Your task to perform on an android device: Open notification settings Image 0: 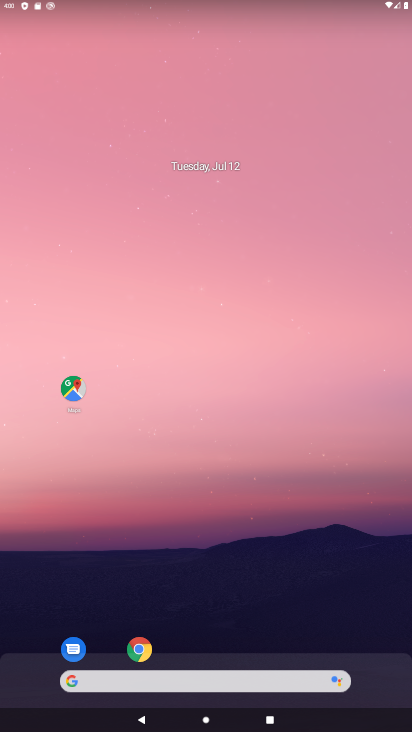
Step 0: drag from (186, 633) to (294, 125)
Your task to perform on an android device: Open notification settings Image 1: 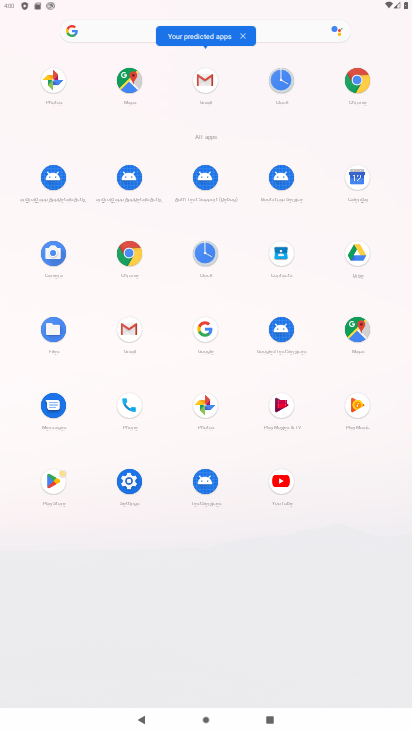
Step 1: click (126, 480)
Your task to perform on an android device: Open notification settings Image 2: 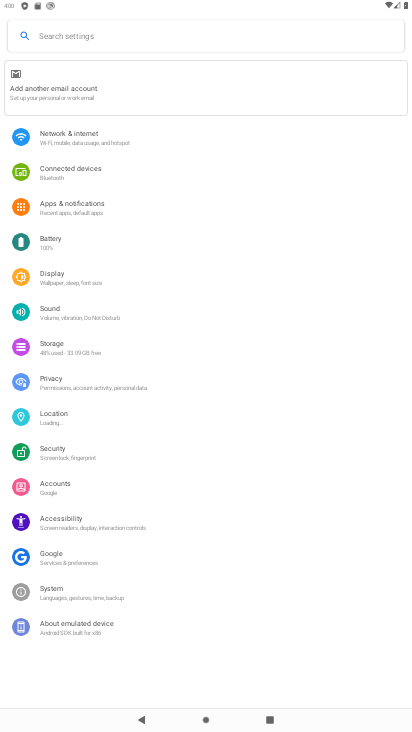
Step 2: click (108, 209)
Your task to perform on an android device: Open notification settings Image 3: 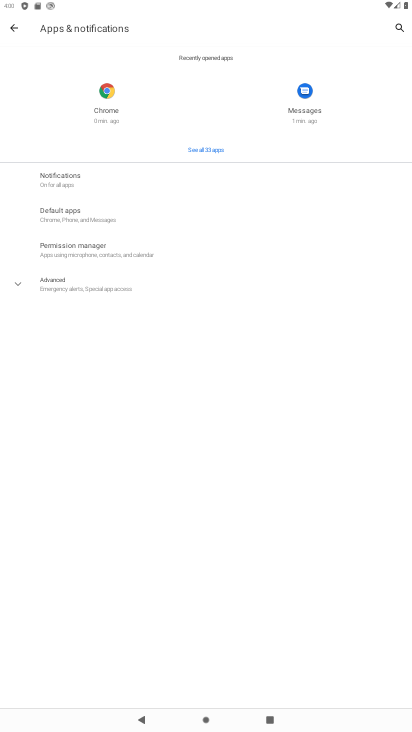
Step 3: click (83, 181)
Your task to perform on an android device: Open notification settings Image 4: 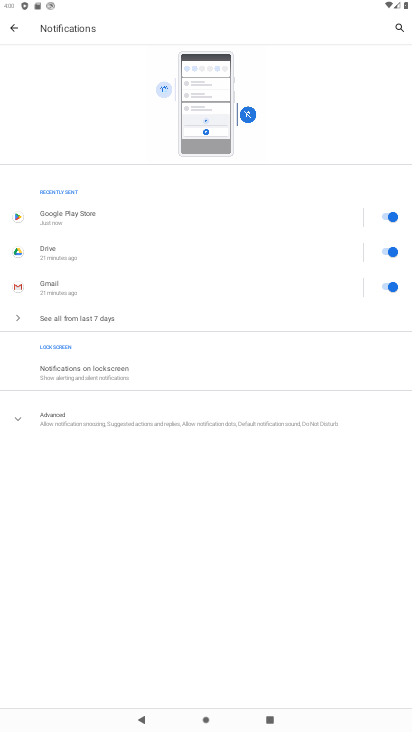
Step 4: task complete